Your task to perform on an android device: Go to Android settings Image 0: 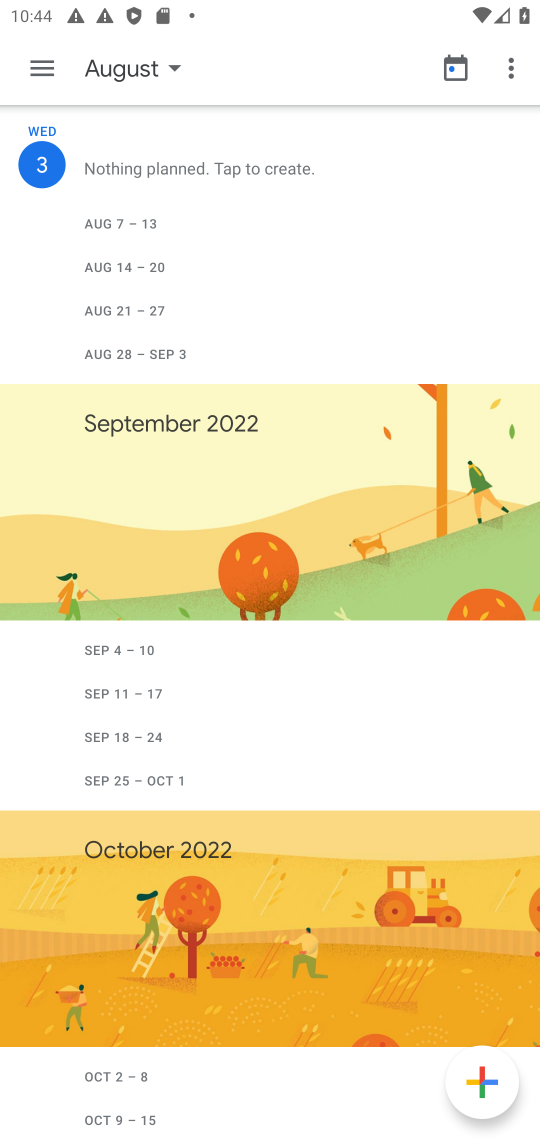
Step 0: press home button
Your task to perform on an android device: Go to Android settings Image 1: 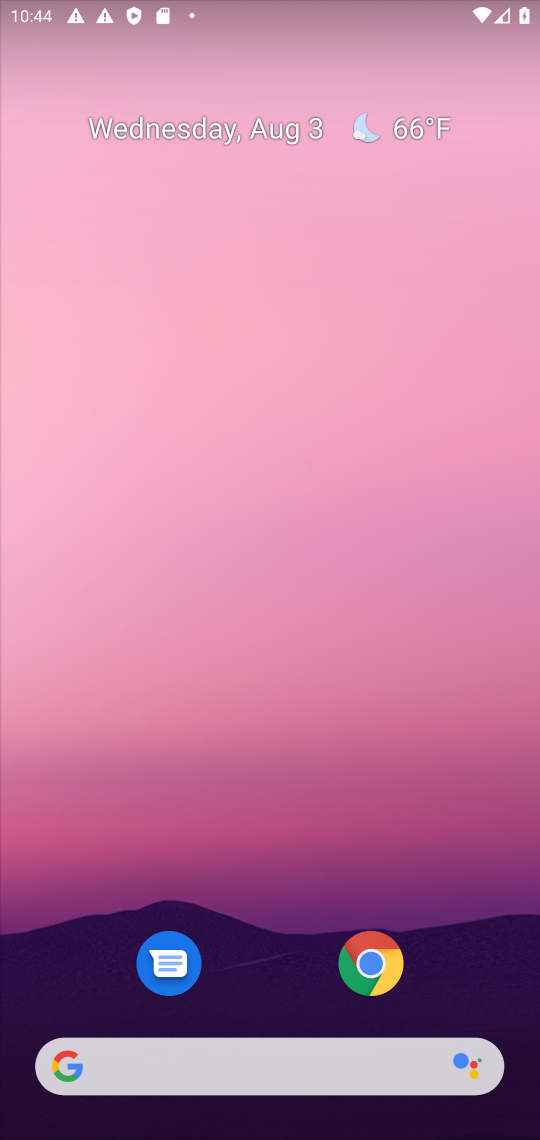
Step 1: drag from (466, 981) to (360, 198)
Your task to perform on an android device: Go to Android settings Image 2: 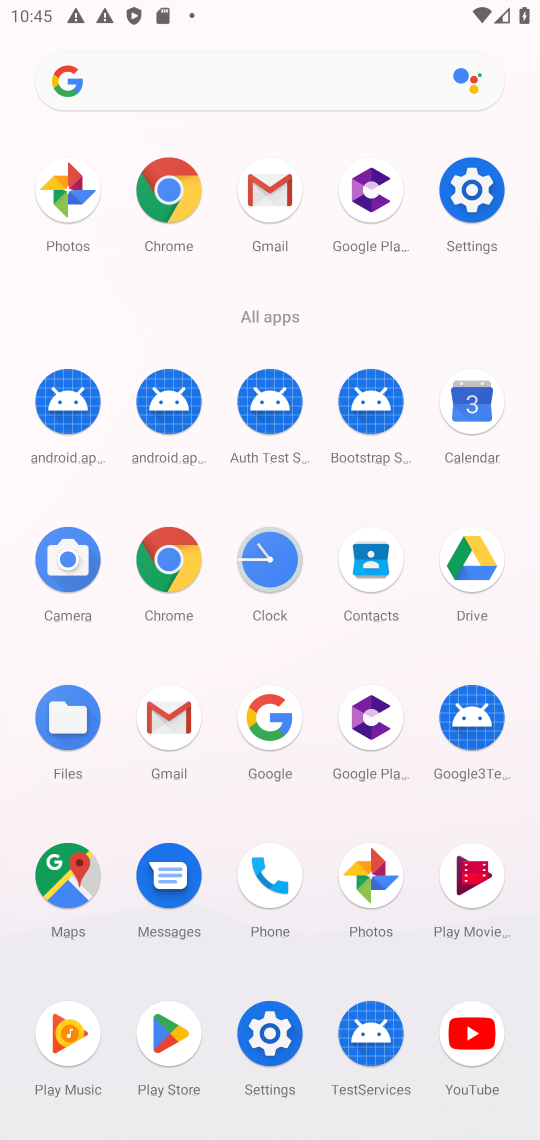
Step 2: click (277, 1049)
Your task to perform on an android device: Go to Android settings Image 3: 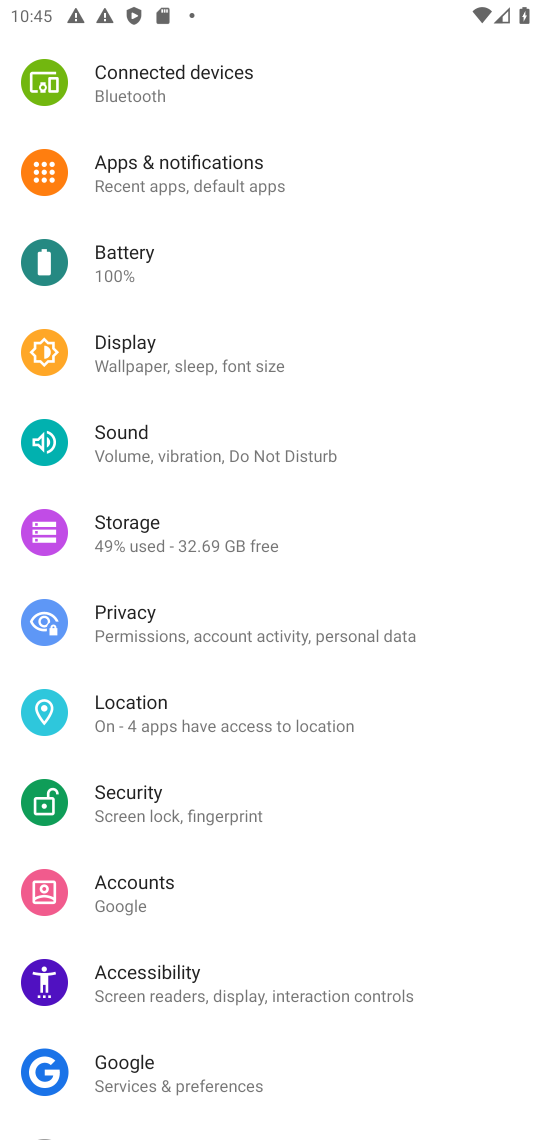
Step 3: task complete